Your task to perform on an android device: open a bookmark in the chrome app Image 0: 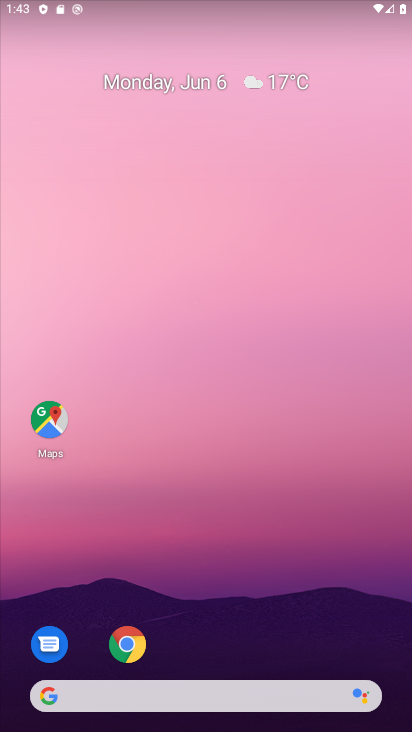
Step 0: click (130, 643)
Your task to perform on an android device: open a bookmark in the chrome app Image 1: 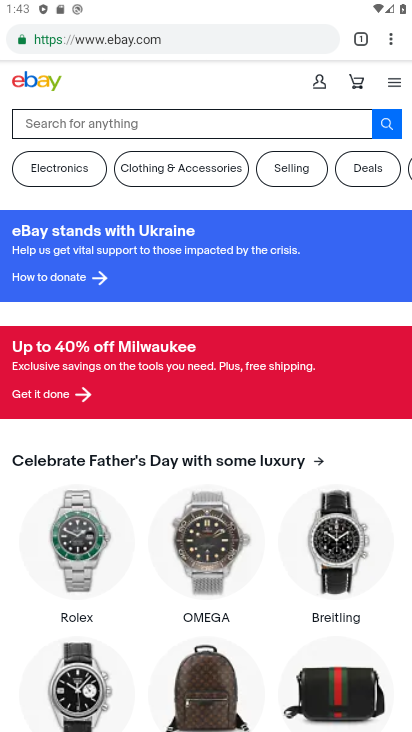
Step 1: click (391, 40)
Your task to perform on an android device: open a bookmark in the chrome app Image 2: 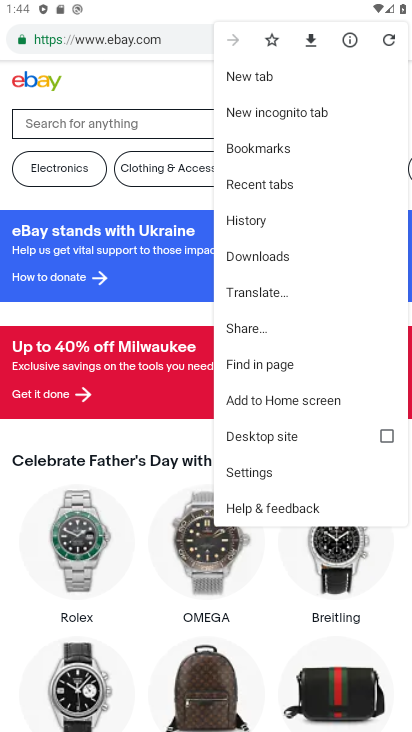
Step 2: click (265, 151)
Your task to perform on an android device: open a bookmark in the chrome app Image 3: 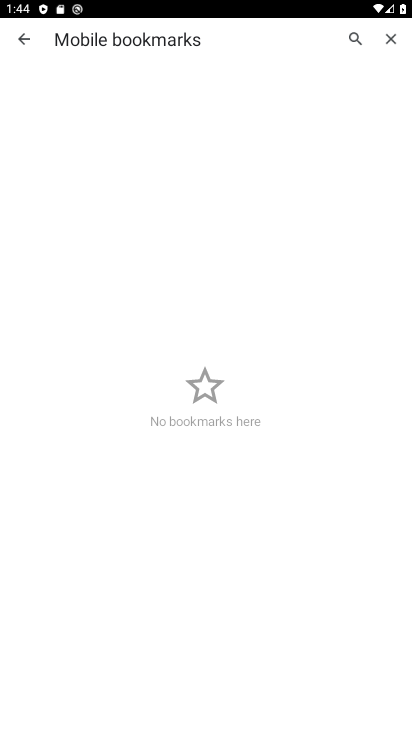
Step 3: task complete